Your task to perform on an android device: check storage Image 0: 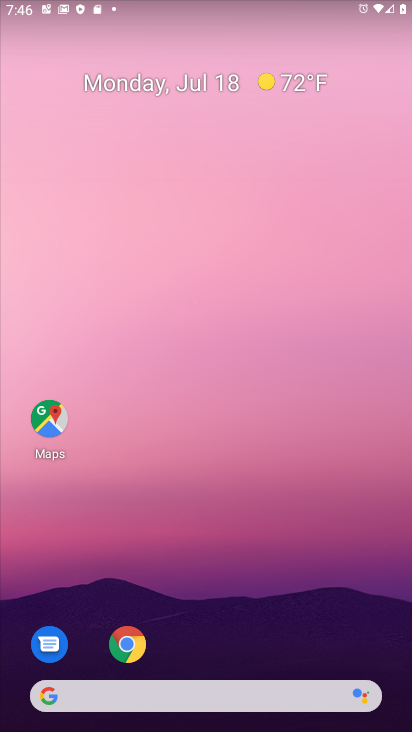
Step 0: drag from (338, 636) to (145, 46)
Your task to perform on an android device: check storage Image 1: 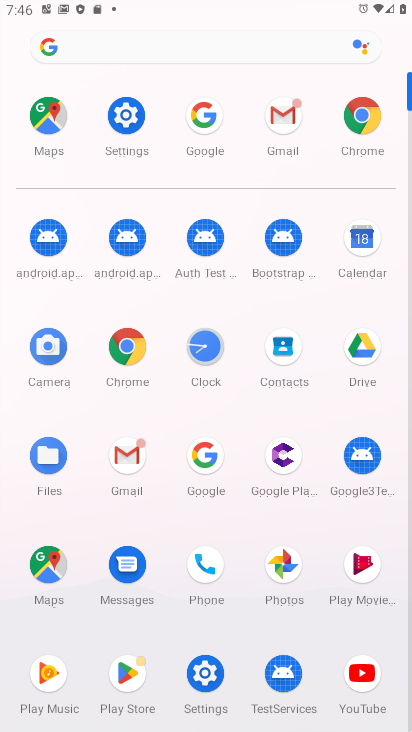
Step 1: click (218, 675)
Your task to perform on an android device: check storage Image 2: 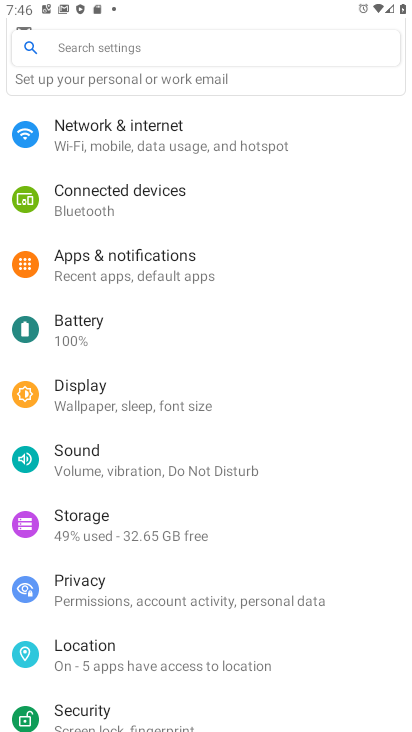
Step 2: click (113, 519)
Your task to perform on an android device: check storage Image 3: 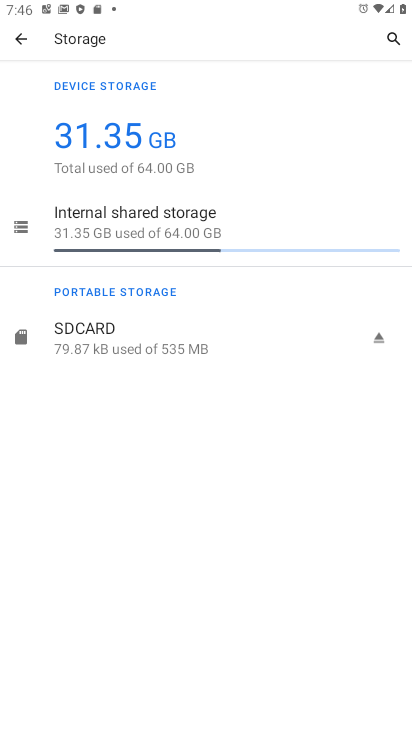
Step 3: click (147, 217)
Your task to perform on an android device: check storage Image 4: 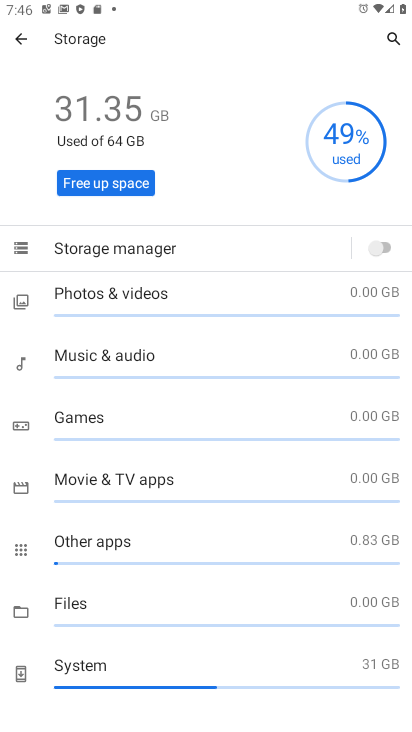
Step 4: task complete